Your task to perform on an android device: turn pop-ups off in chrome Image 0: 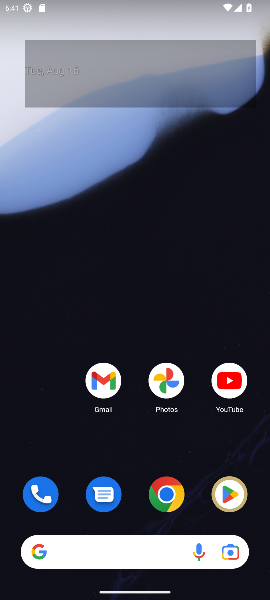
Step 0: drag from (43, 429) to (110, 156)
Your task to perform on an android device: turn pop-ups off in chrome Image 1: 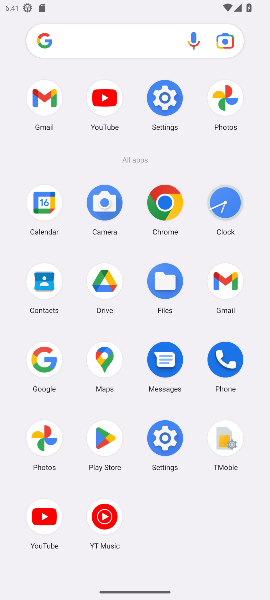
Step 1: task complete